Your task to perform on an android device: Go to battery settings Image 0: 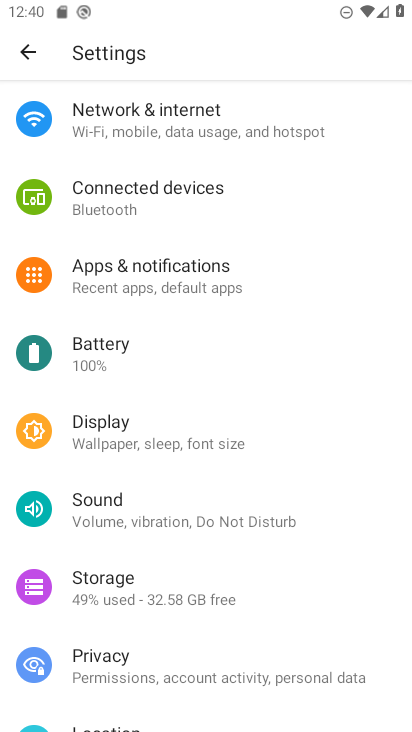
Step 0: press home button
Your task to perform on an android device: Go to battery settings Image 1: 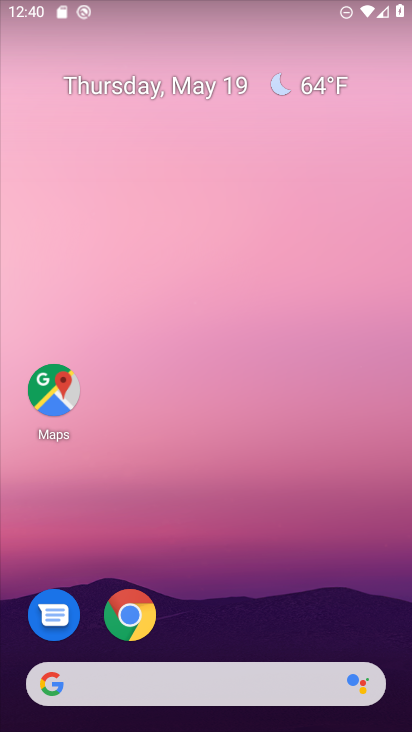
Step 1: drag from (259, 707) to (304, 142)
Your task to perform on an android device: Go to battery settings Image 2: 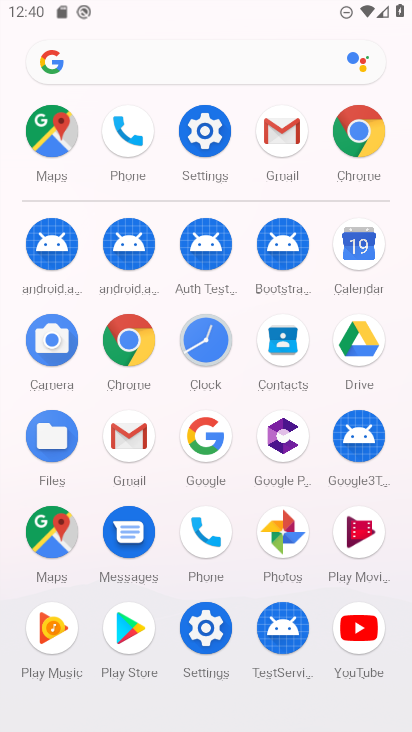
Step 2: click (199, 612)
Your task to perform on an android device: Go to battery settings Image 3: 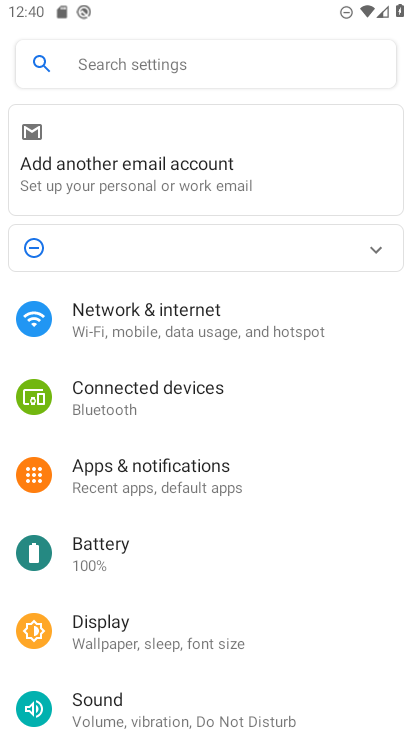
Step 3: click (125, 549)
Your task to perform on an android device: Go to battery settings Image 4: 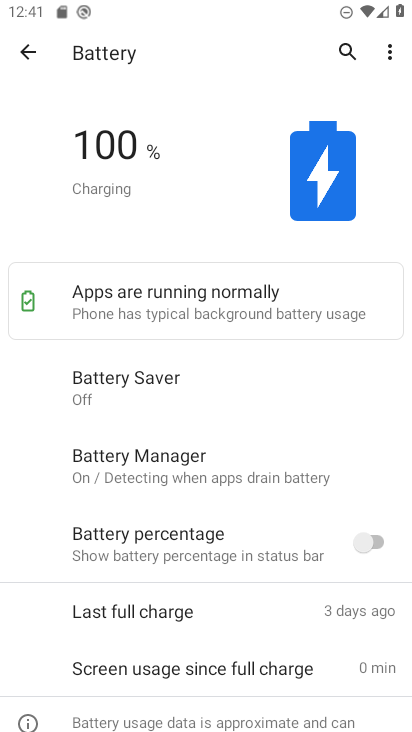
Step 4: task complete